Your task to perform on an android device: toggle notification dots Image 0: 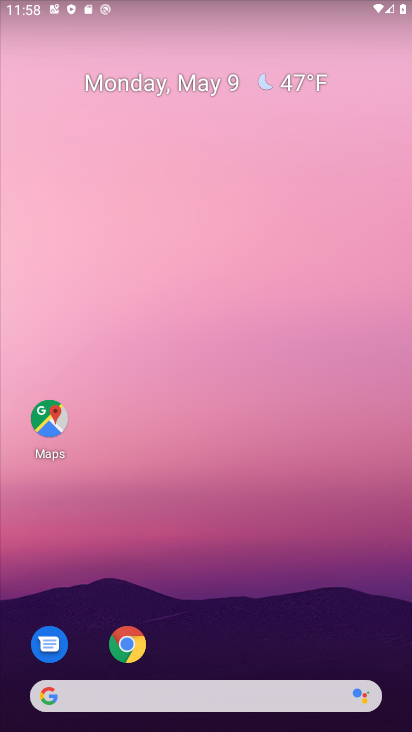
Step 0: drag from (32, 547) to (258, 149)
Your task to perform on an android device: toggle notification dots Image 1: 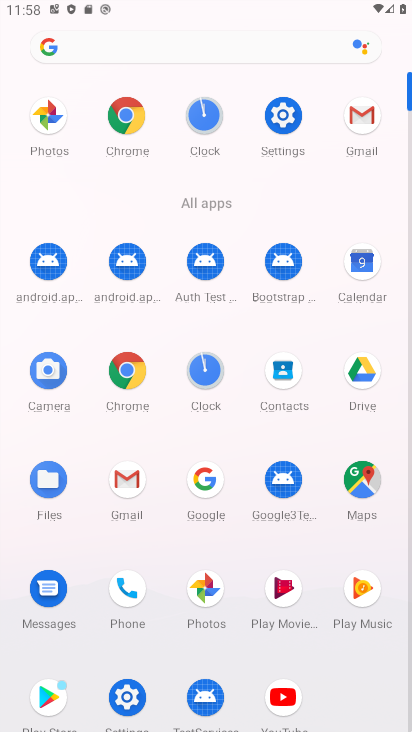
Step 1: click (289, 117)
Your task to perform on an android device: toggle notification dots Image 2: 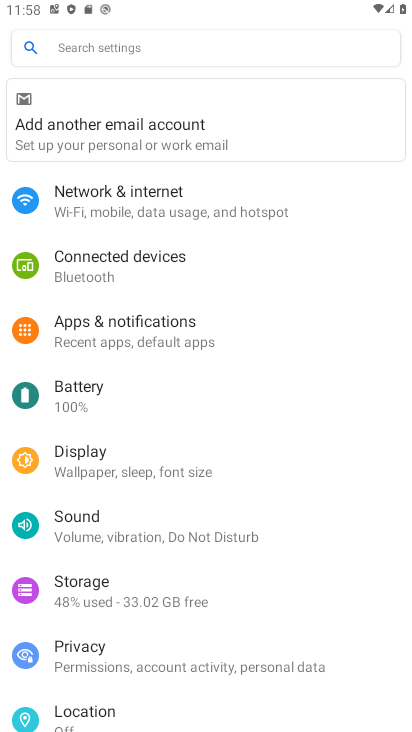
Step 2: click (112, 323)
Your task to perform on an android device: toggle notification dots Image 3: 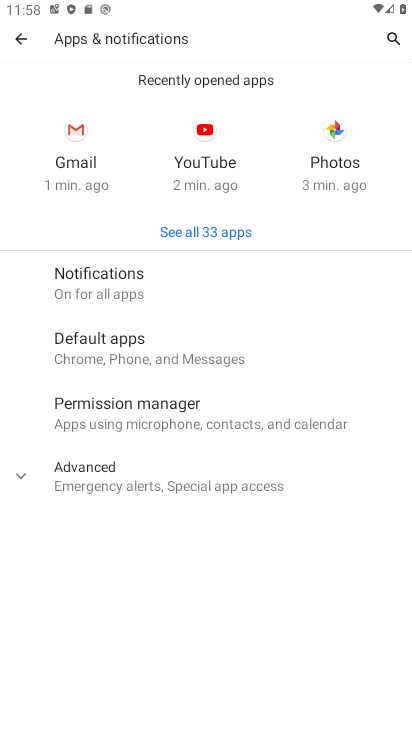
Step 3: click (120, 291)
Your task to perform on an android device: toggle notification dots Image 4: 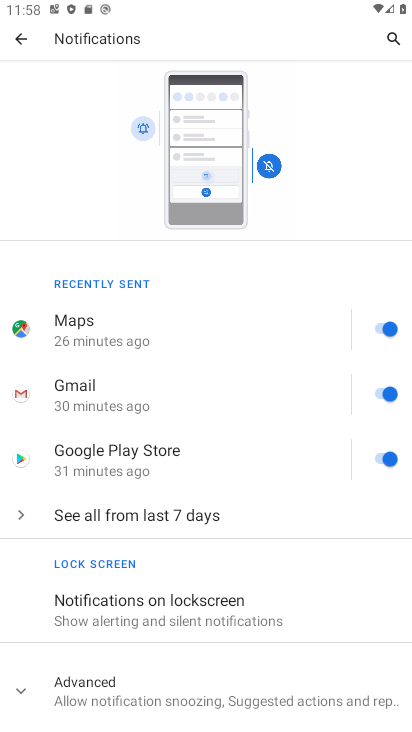
Step 4: click (111, 683)
Your task to perform on an android device: toggle notification dots Image 5: 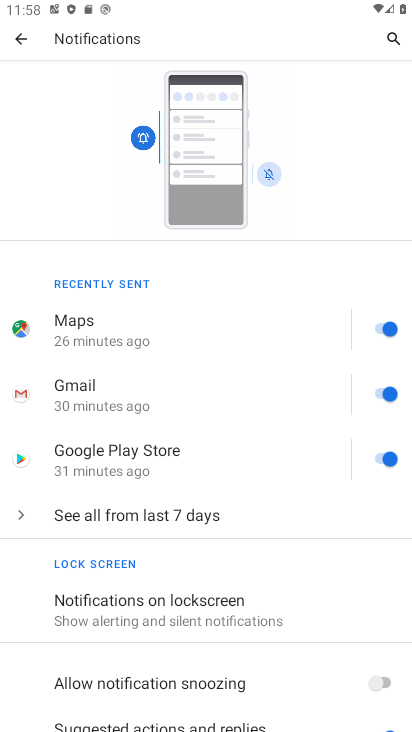
Step 5: drag from (110, 688) to (226, 281)
Your task to perform on an android device: toggle notification dots Image 6: 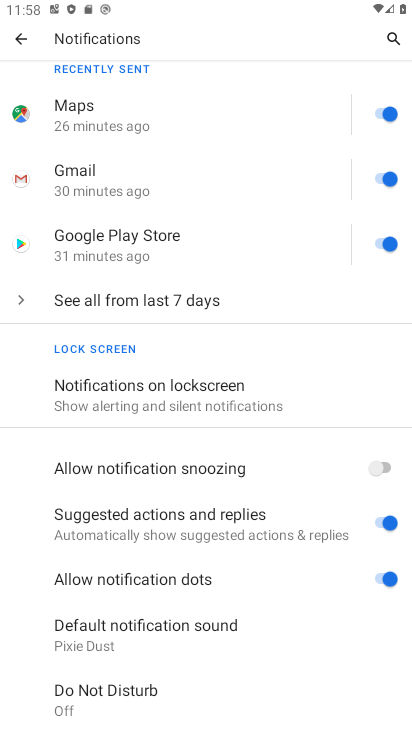
Step 6: click (390, 585)
Your task to perform on an android device: toggle notification dots Image 7: 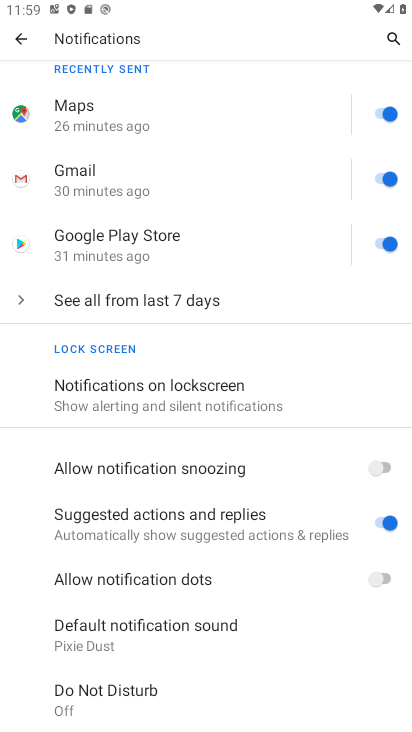
Step 7: task complete